Your task to perform on an android device: Open Google Chrome and open the bookmarks view Image 0: 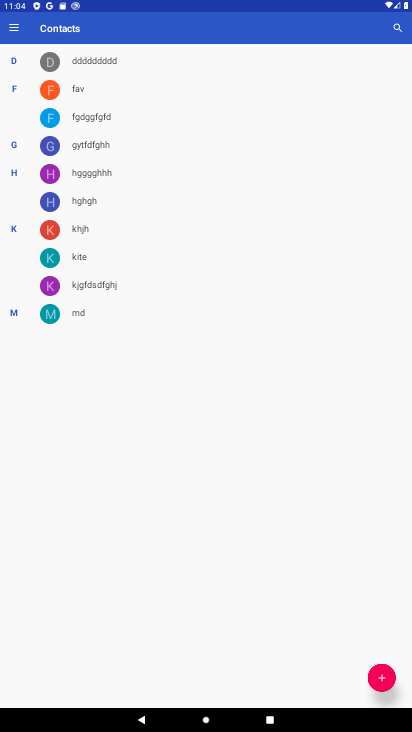
Step 0: press home button
Your task to perform on an android device: Open Google Chrome and open the bookmarks view Image 1: 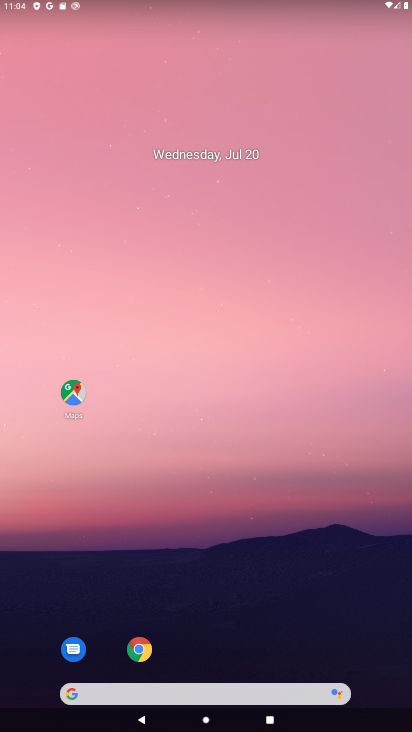
Step 1: drag from (163, 647) to (214, 390)
Your task to perform on an android device: Open Google Chrome and open the bookmarks view Image 2: 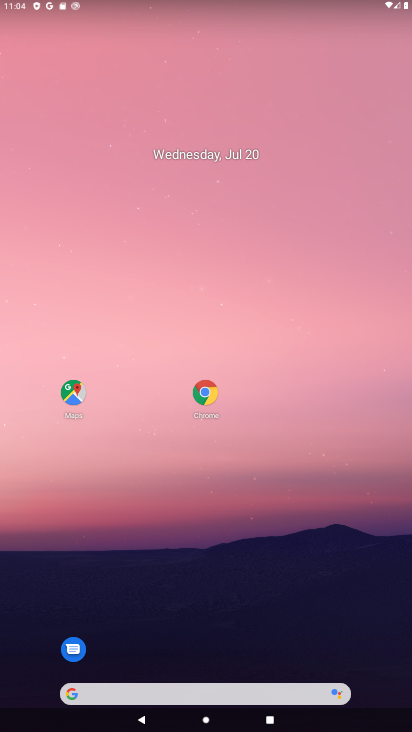
Step 2: click (320, 289)
Your task to perform on an android device: Open Google Chrome and open the bookmarks view Image 3: 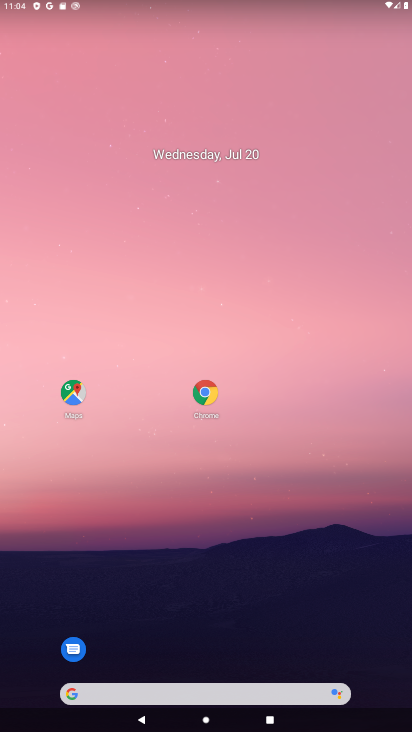
Step 3: click (205, 402)
Your task to perform on an android device: Open Google Chrome and open the bookmarks view Image 4: 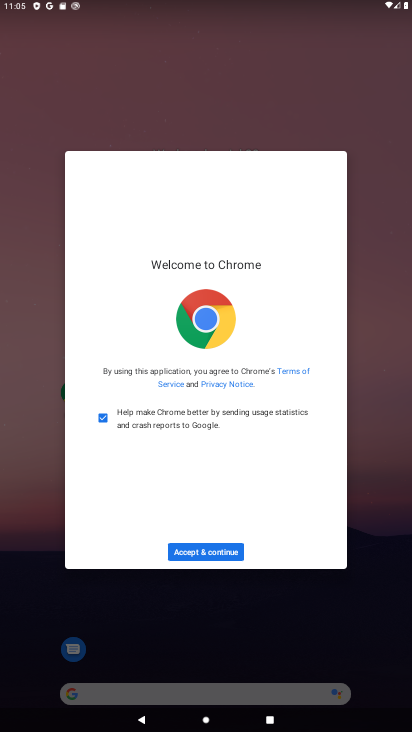
Step 4: click (184, 554)
Your task to perform on an android device: Open Google Chrome and open the bookmarks view Image 5: 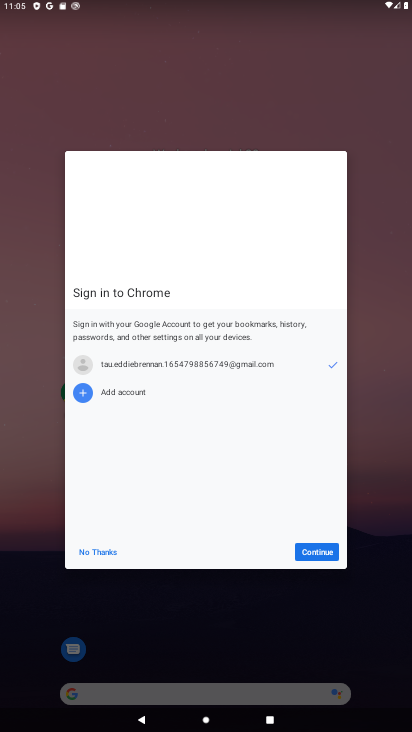
Step 5: click (314, 553)
Your task to perform on an android device: Open Google Chrome and open the bookmarks view Image 6: 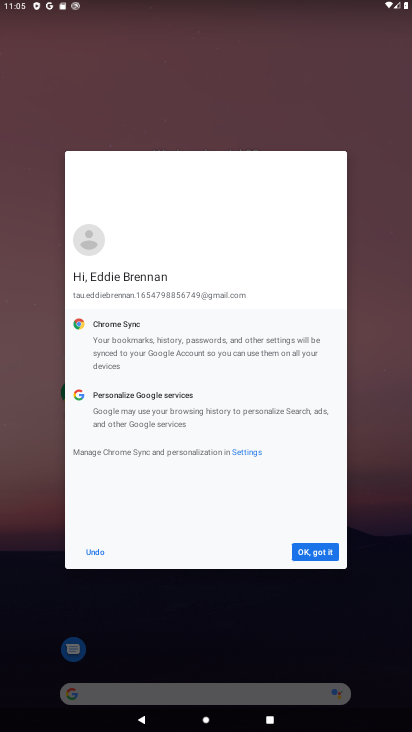
Step 6: click (314, 553)
Your task to perform on an android device: Open Google Chrome and open the bookmarks view Image 7: 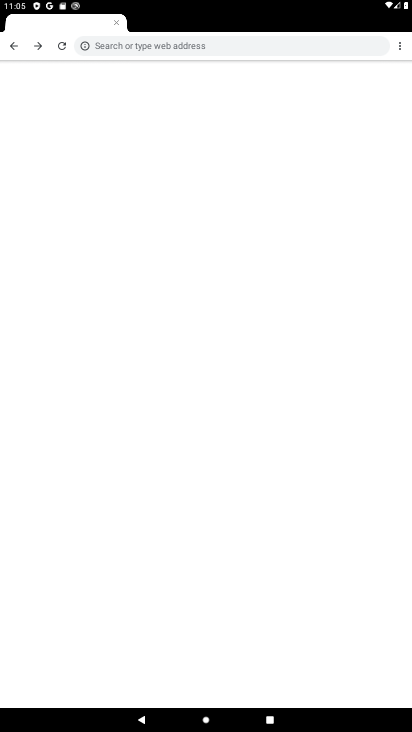
Step 7: click (400, 46)
Your task to perform on an android device: Open Google Chrome and open the bookmarks view Image 8: 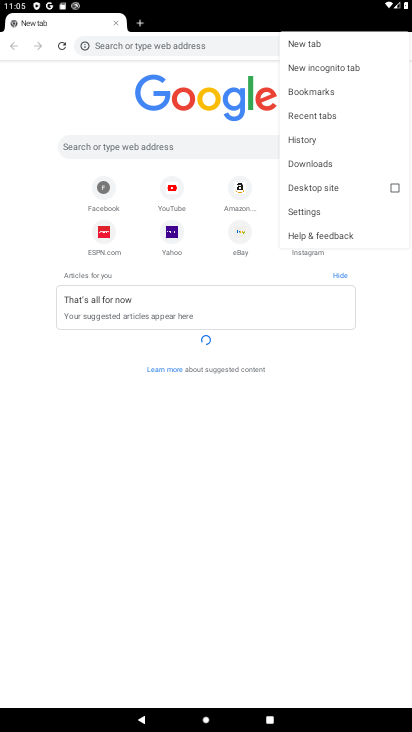
Step 8: click (339, 89)
Your task to perform on an android device: Open Google Chrome and open the bookmarks view Image 9: 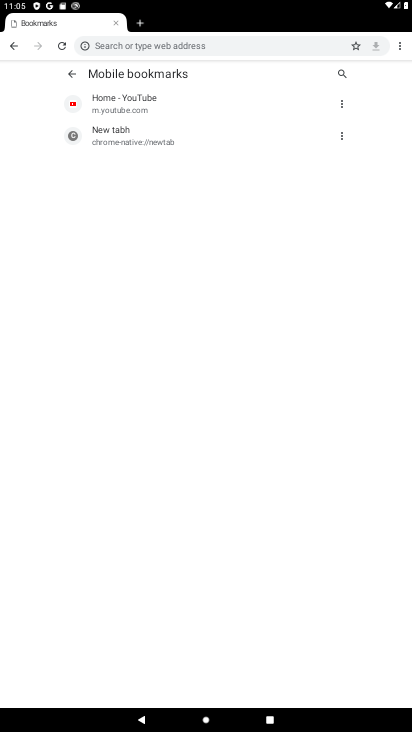
Step 9: task complete